Your task to perform on an android device: turn off location history Image 0: 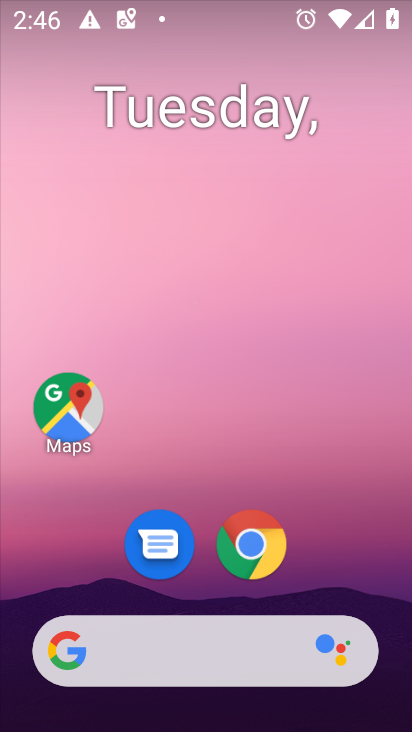
Step 0: drag from (329, 554) to (299, 36)
Your task to perform on an android device: turn off location history Image 1: 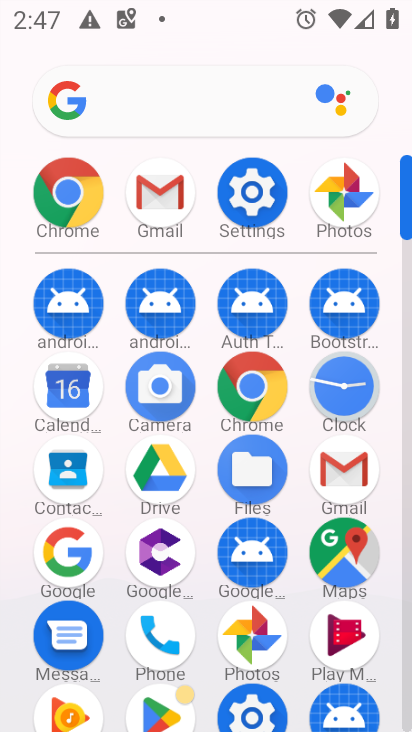
Step 1: click (259, 709)
Your task to perform on an android device: turn off location history Image 2: 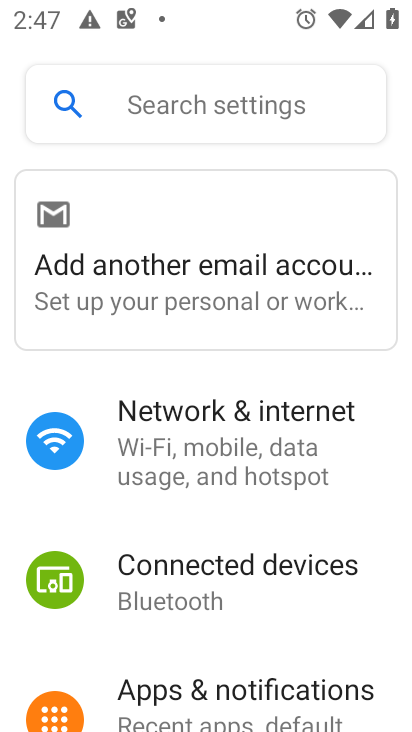
Step 2: drag from (187, 607) to (213, 2)
Your task to perform on an android device: turn off location history Image 3: 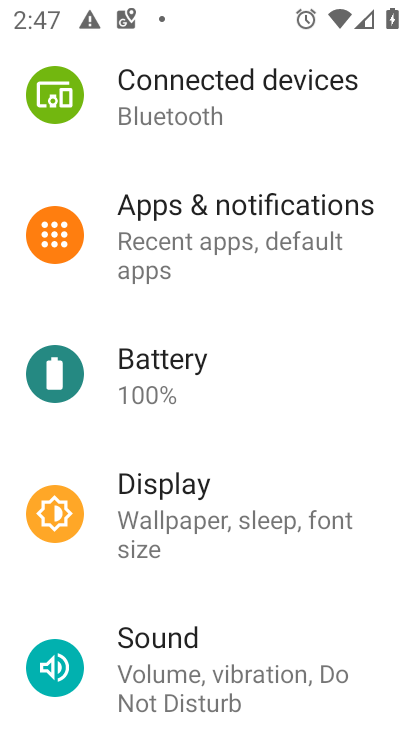
Step 3: drag from (224, 149) to (244, 475)
Your task to perform on an android device: turn off location history Image 4: 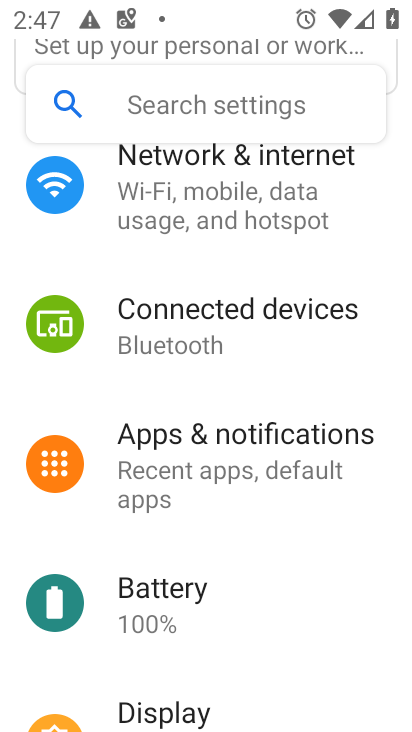
Step 4: drag from (248, 614) to (276, 91)
Your task to perform on an android device: turn off location history Image 5: 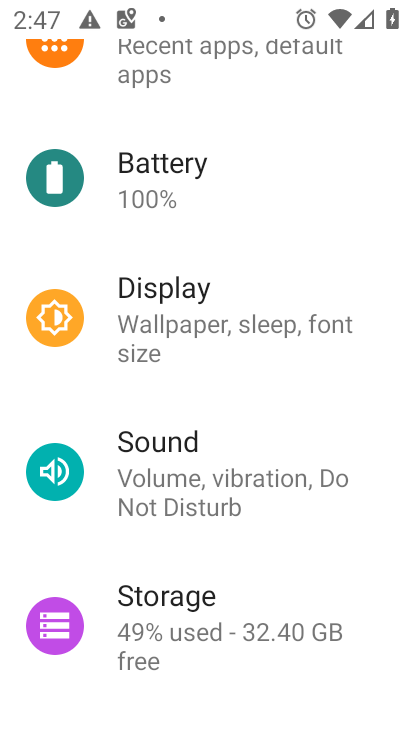
Step 5: drag from (199, 569) to (255, 64)
Your task to perform on an android device: turn off location history Image 6: 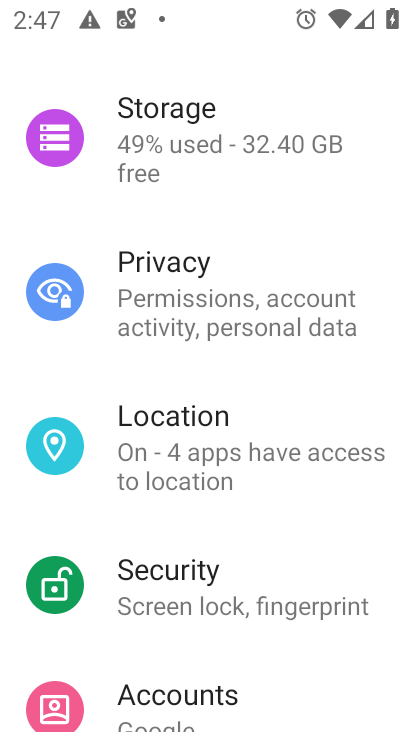
Step 6: click (209, 434)
Your task to perform on an android device: turn off location history Image 7: 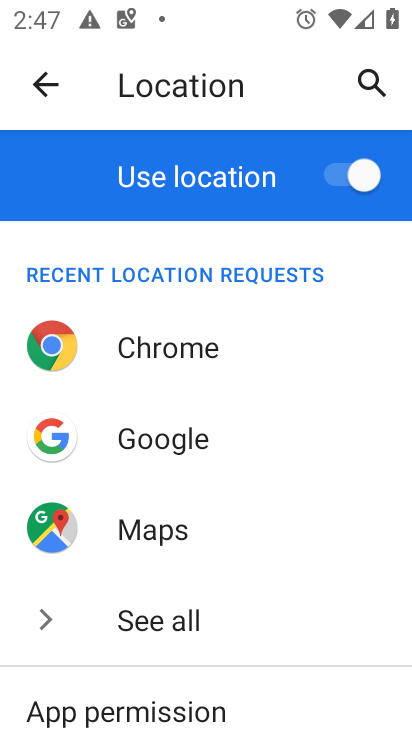
Step 7: drag from (235, 677) to (278, 192)
Your task to perform on an android device: turn off location history Image 8: 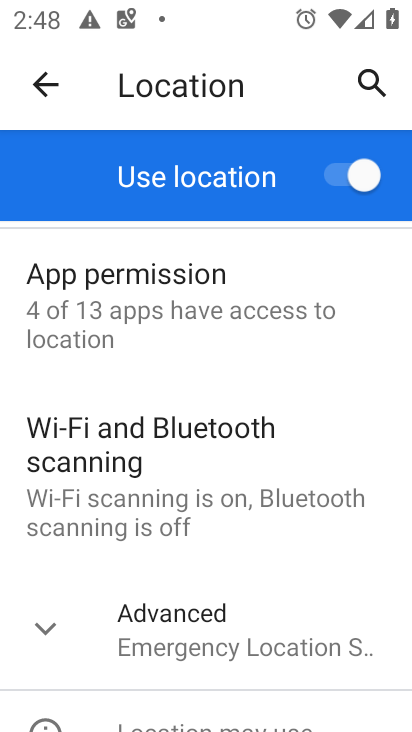
Step 8: click (231, 645)
Your task to perform on an android device: turn off location history Image 9: 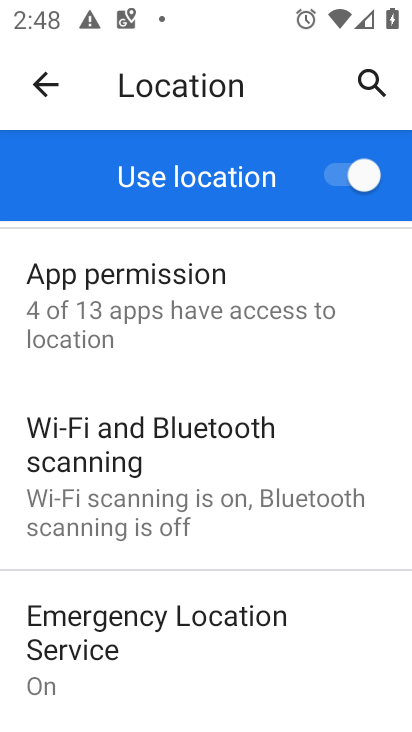
Step 9: drag from (230, 649) to (288, 155)
Your task to perform on an android device: turn off location history Image 10: 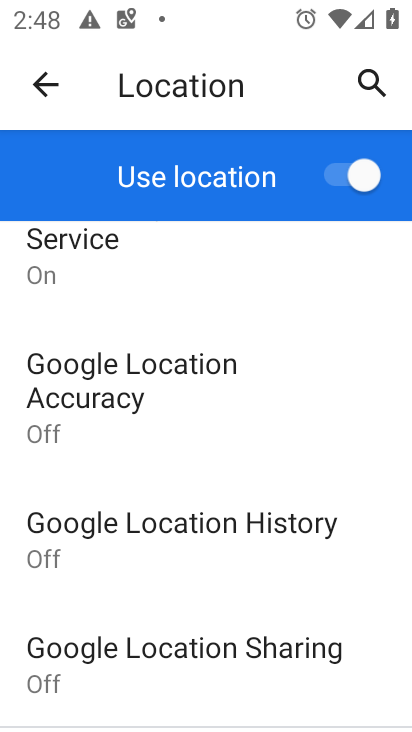
Step 10: click (232, 530)
Your task to perform on an android device: turn off location history Image 11: 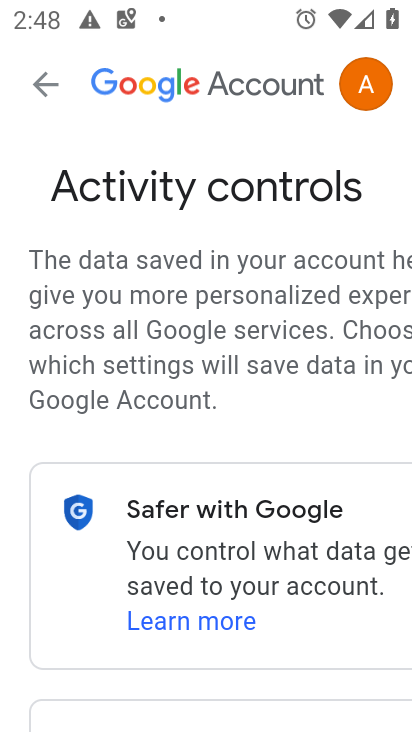
Step 11: drag from (303, 639) to (268, 231)
Your task to perform on an android device: turn off location history Image 12: 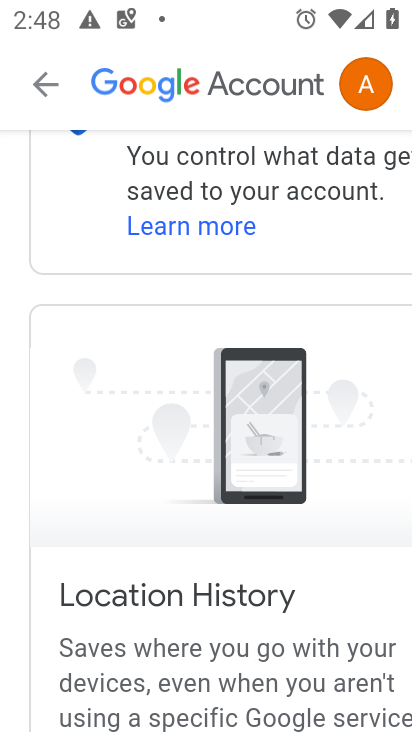
Step 12: drag from (252, 661) to (260, 94)
Your task to perform on an android device: turn off location history Image 13: 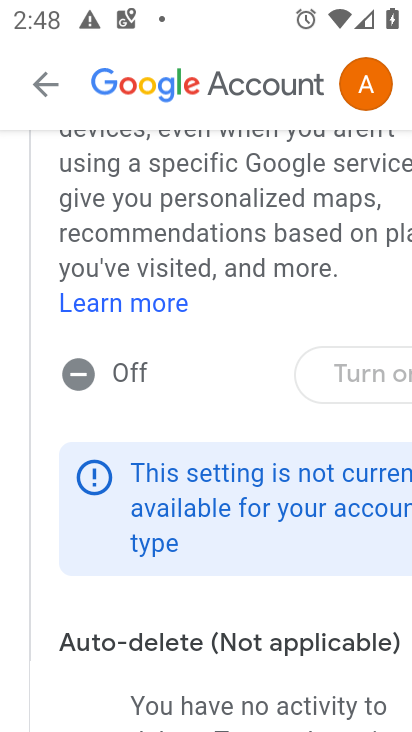
Step 13: click (136, 371)
Your task to perform on an android device: turn off location history Image 14: 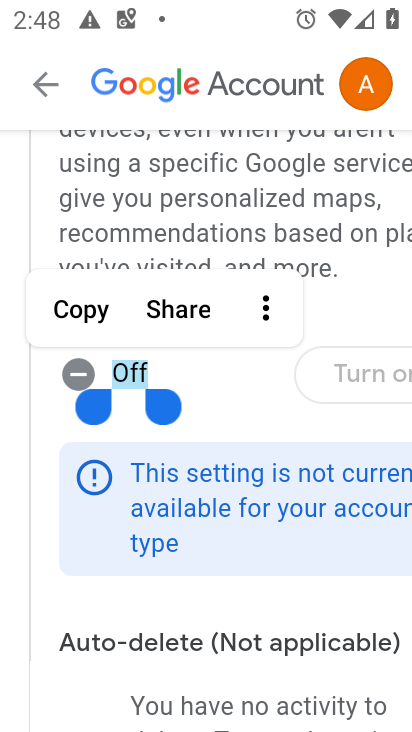
Step 14: task complete